Your task to perform on an android device: add a contact Image 0: 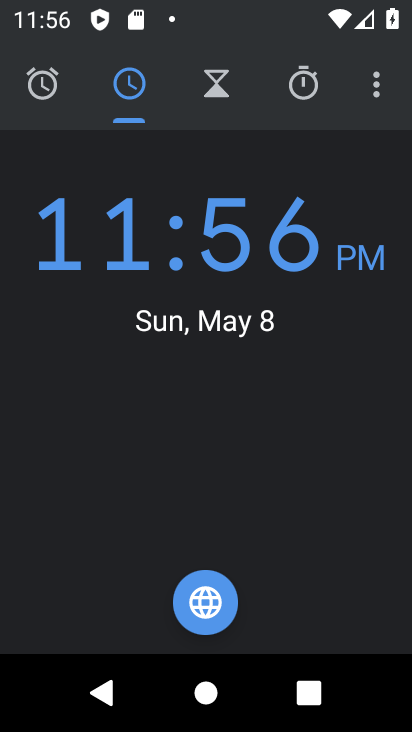
Step 0: press home button
Your task to perform on an android device: add a contact Image 1: 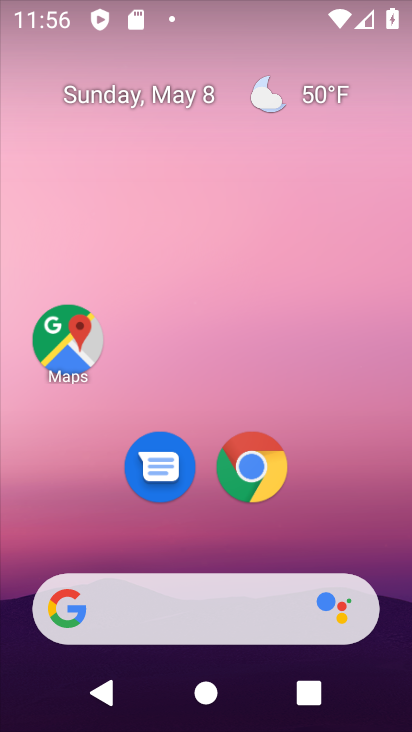
Step 1: drag from (200, 551) to (242, 30)
Your task to perform on an android device: add a contact Image 2: 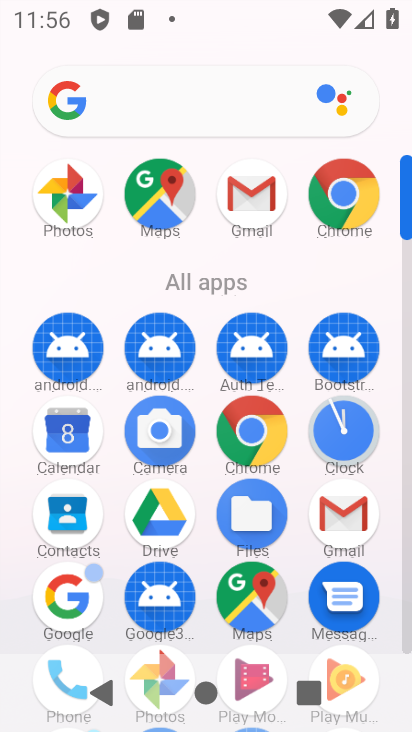
Step 2: click (68, 508)
Your task to perform on an android device: add a contact Image 3: 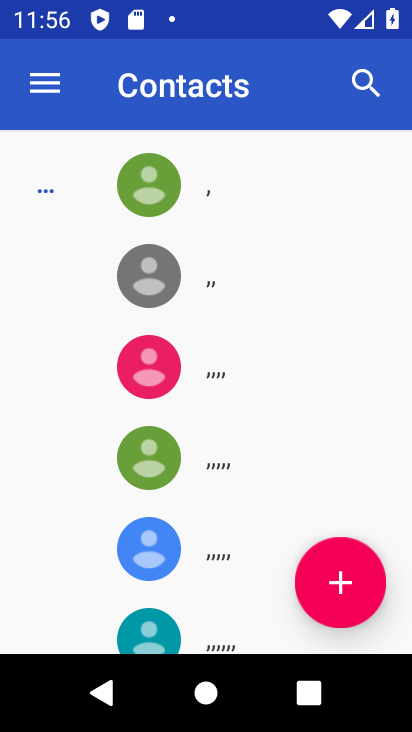
Step 3: click (329, 582)
Your task to perform on an android device: add a contact Image 4: 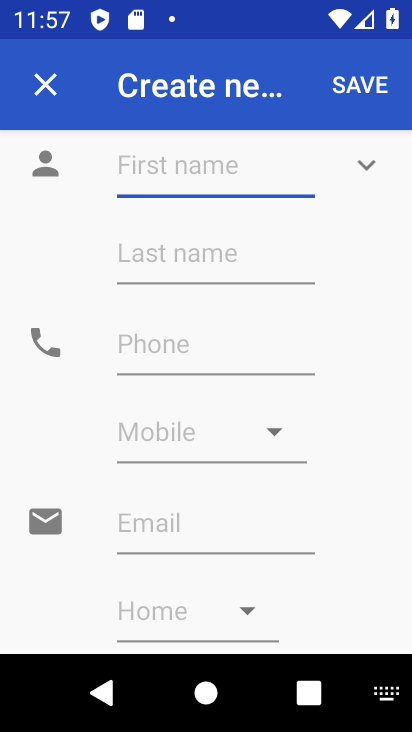
Step 4: type "hvhgdg"
Your task to perform on an android device: add a contact Image 5: 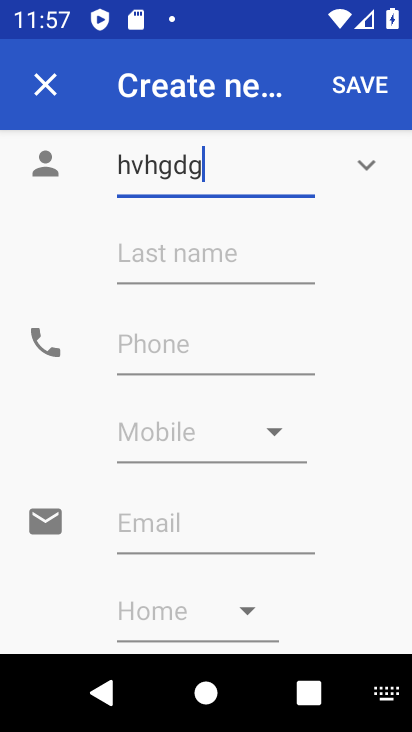
Step 5: click (377, 102)
Your task to perform on an android device: add a contact Image 6: 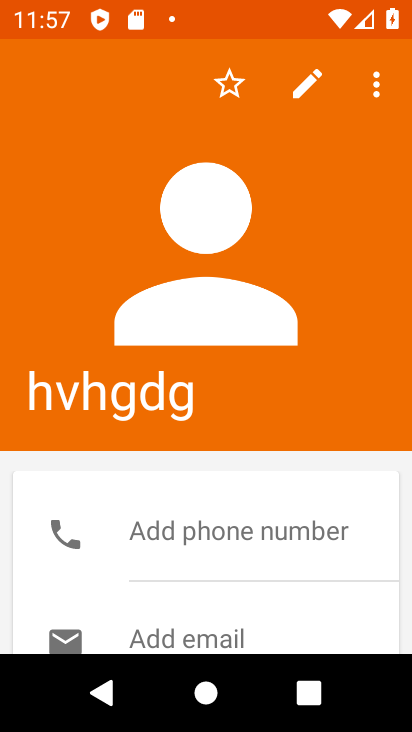
Step 6: task complete